Your task to perform on an android device: choose inbox layout in the gmail app Image 0: 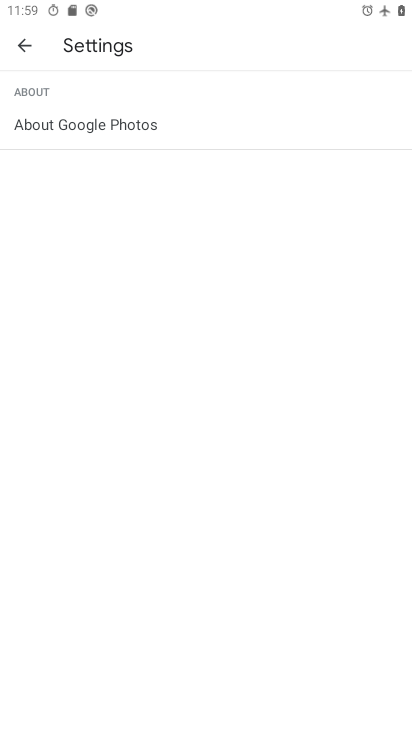
Step 0: press back button
Your task to perform on an android device: choose inbox layout in the gmail app Image 1: 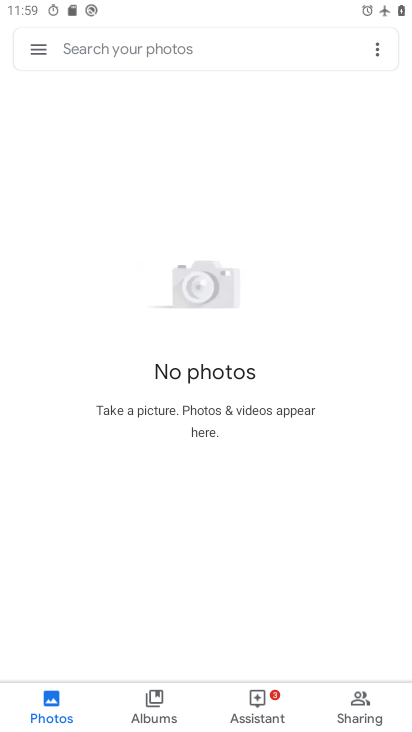
Step 1: press home button
Your task to perform on an android device: choose inbox layout in the gmail app Image 2: 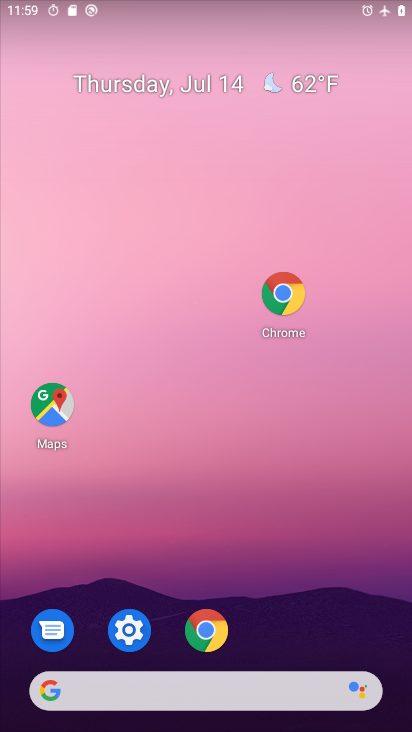
Step 2: drag from (209, 588) to (137, 122)
Your task to perform on an android device: choose inbox layout in the gmail app Image 3: 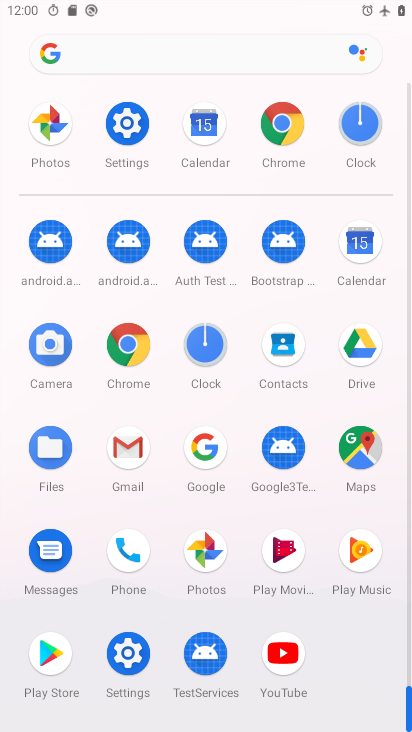
Step 3: click (123, 455)
Your task to perform on an android device: choose inbox layout in the gmail app Image 4: 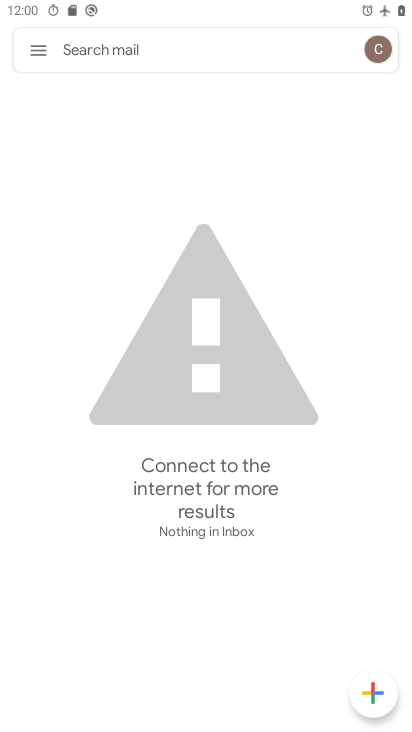
Step 4: click (37, 49)
Your task to perform on an android device: choose inbox layout in the gmail app Image 5: 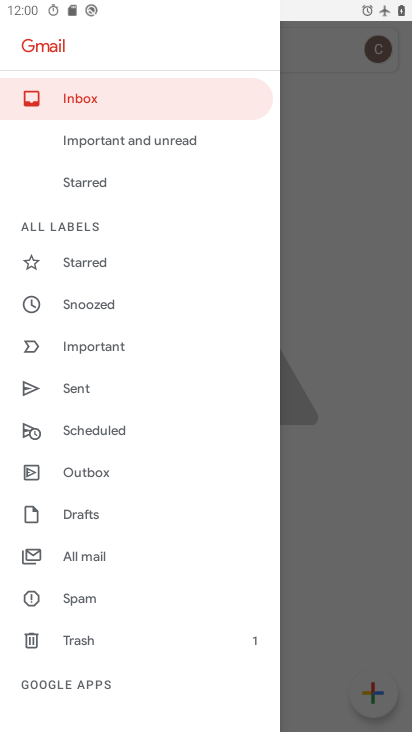
Step 5: click (85, 558)
Your task to perform on an android device: choose inbox layout in the gmail app Image 6: 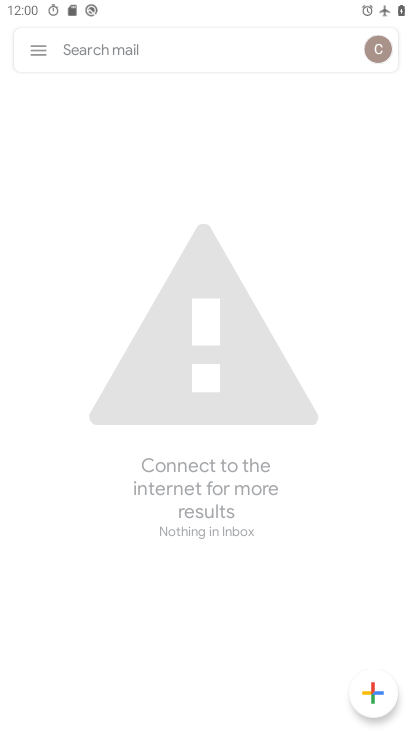
Step 6: click (85, 558)
Your task to perform on an android device: choose inbox layout in the gmail app Image 7: 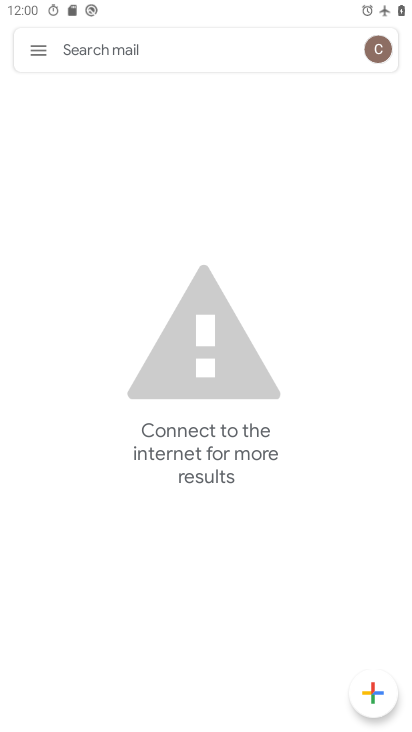
Step 7: task complete